Your task to perform on an android device: add a contact Image 0: 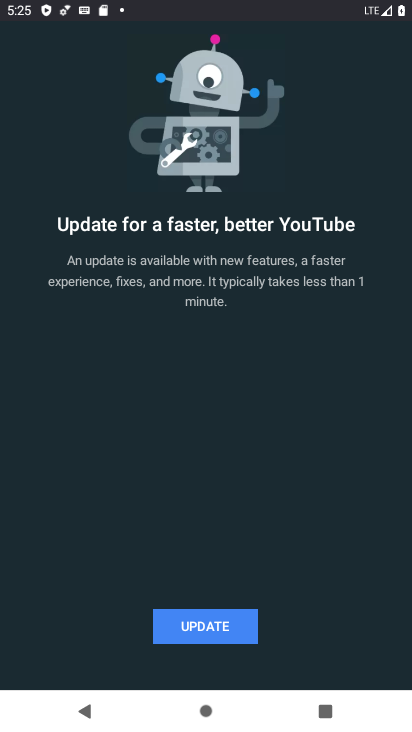
Step 0: press home button
Your task to perform on an android device: add a contact Image 1: 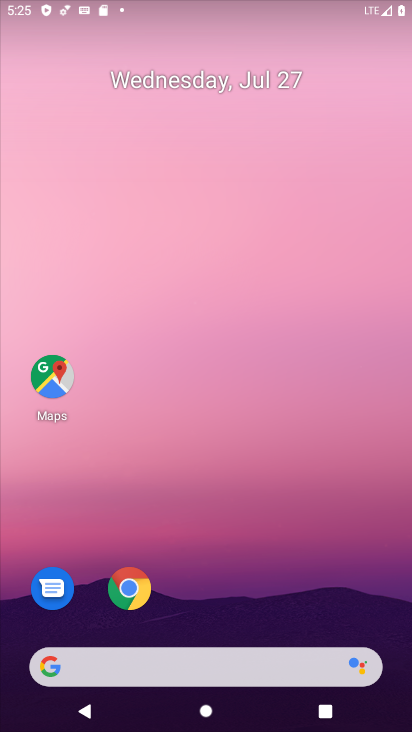
Step 1: drag from (151, 587) to (303, 11)
Your task to perform on an android device: add a contact Image 2: 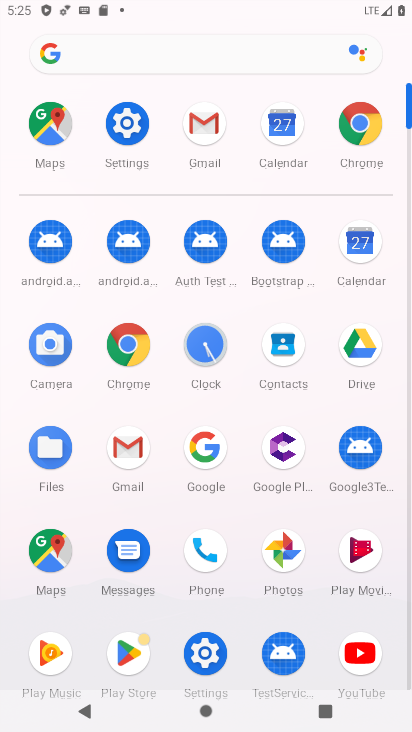
Step 2: click (288, 347)
Your task to perform on an android device: add a contact Image 3: 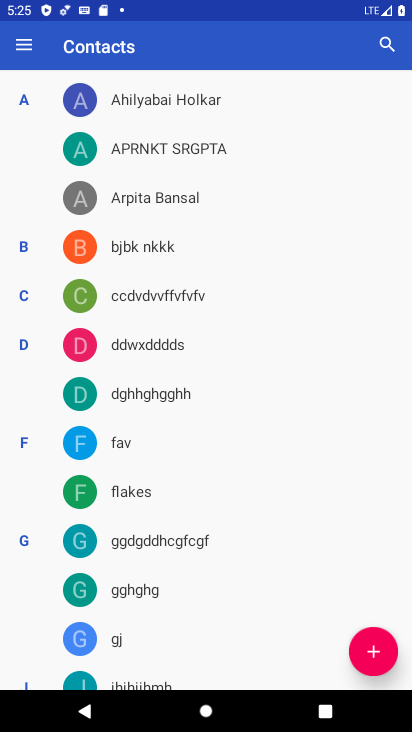
Step 3: click (369, 647)
Your task to perform on an android device: add a contact Image 4: 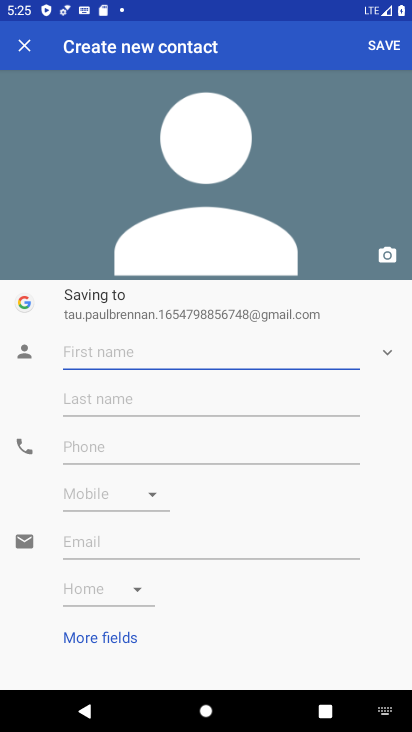
Step 4: type "ashu"
Your task to perform on an android device: add a contact Image 5: 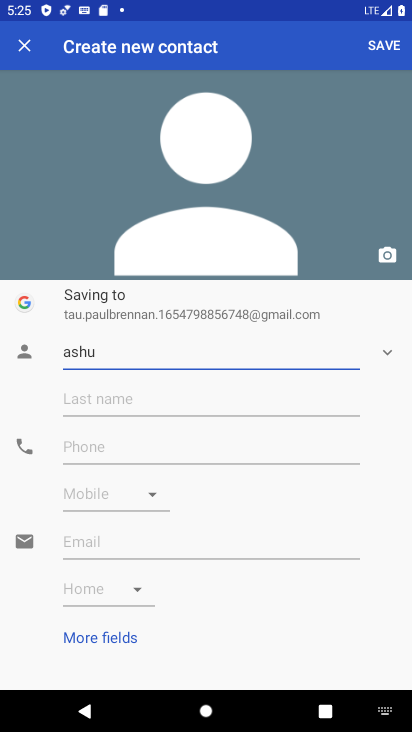
Step 5: click (189, 443)
Your task to perform on an android device: add a contact Image 6: 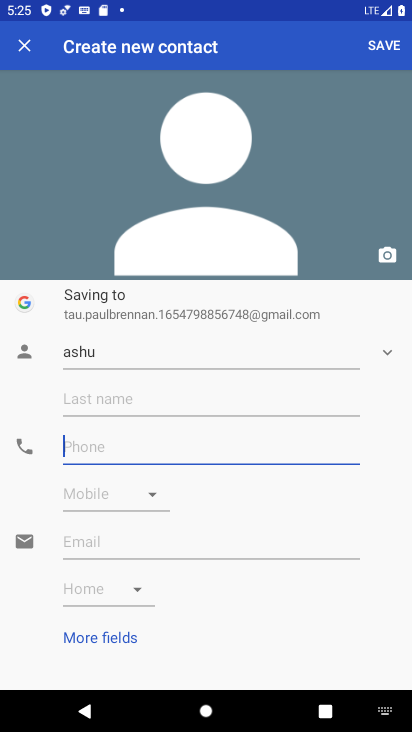
Step 6: type "8009787898"
Your task to perform on an android device: add a contact Image 7: 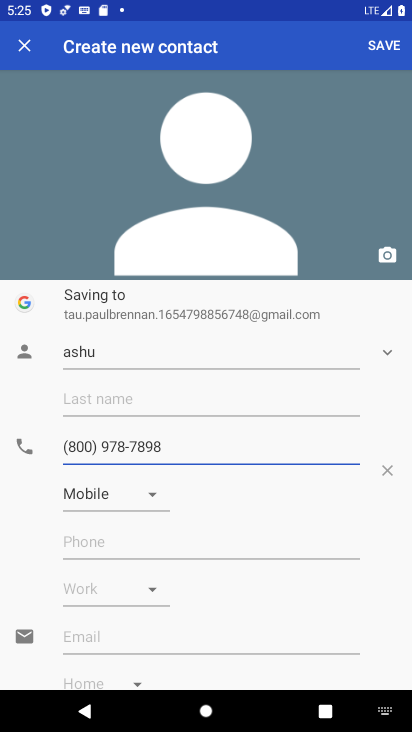
Step 7: click (383, 45)
Your task to perform on an android device: add a contact Image 8: 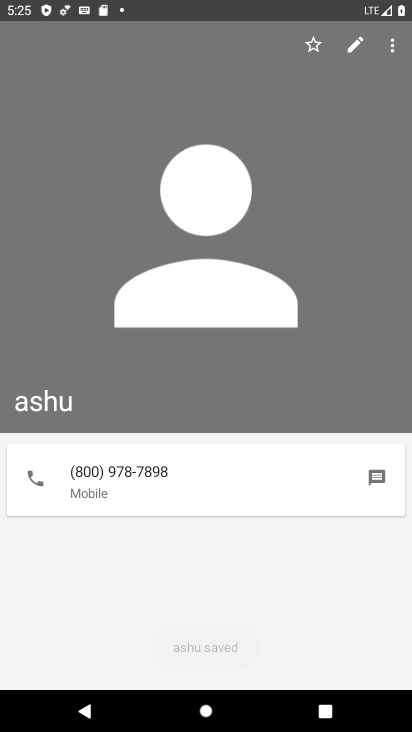
Step 8: task complete